Your task to perform on an android device: Show me the alarms in the clock app Image 0: 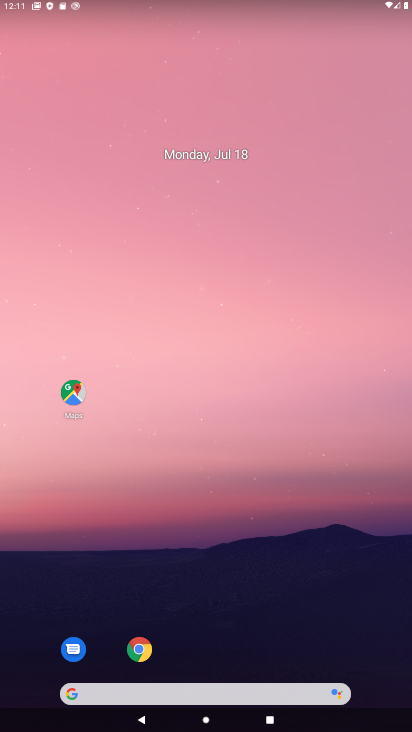
Step 0: drag from (367, 639) to (344, 143)
Your task to perform on an android device: Show me the alarms in the clock app Image 1: 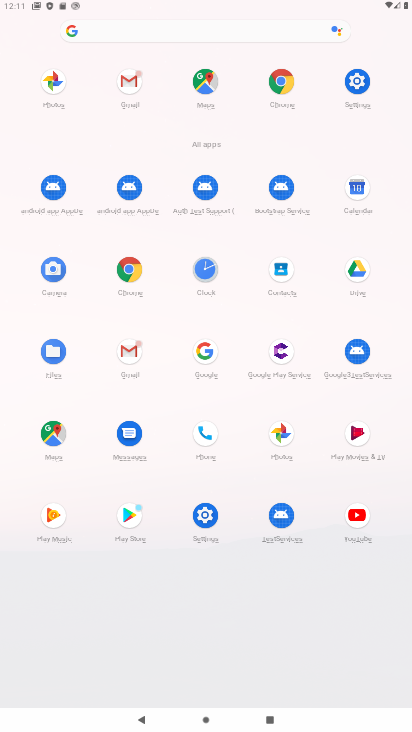
Step 1: click (202, 273)
Your task to perform on an android device: Show me the alarms in the clock app Image 2: 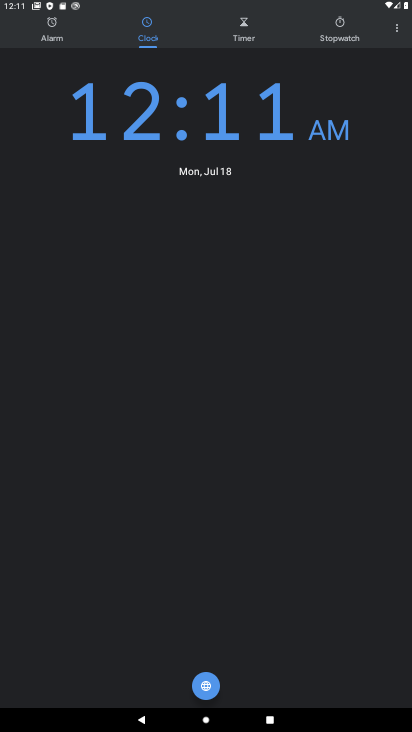
Step 2: click (53, 32)
Your task to perform on an android device: Show me the alarms in the clock app Image 3: 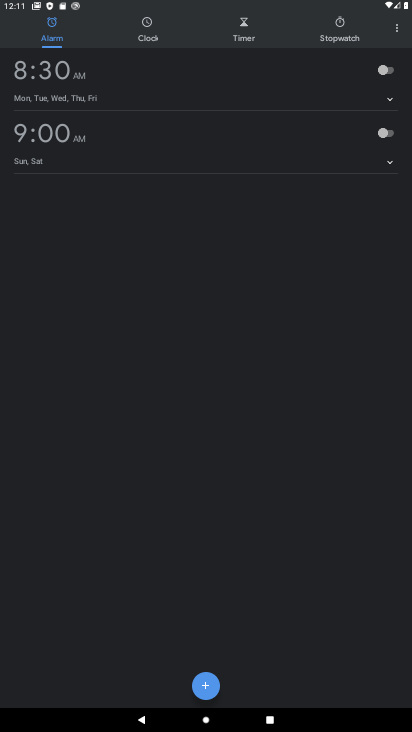
Step 3: task complete